Your task to perform on an android device: set the timer Image 0: 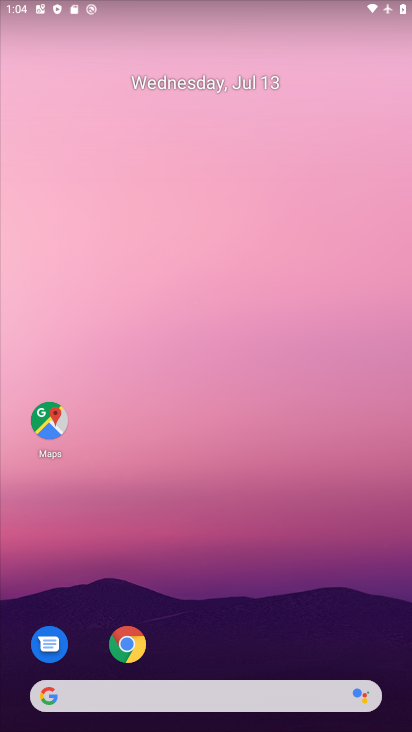
Step 0: drag from (310, 556) to (291, 63)
Your task to perform on an android device: set the timer Image 1: 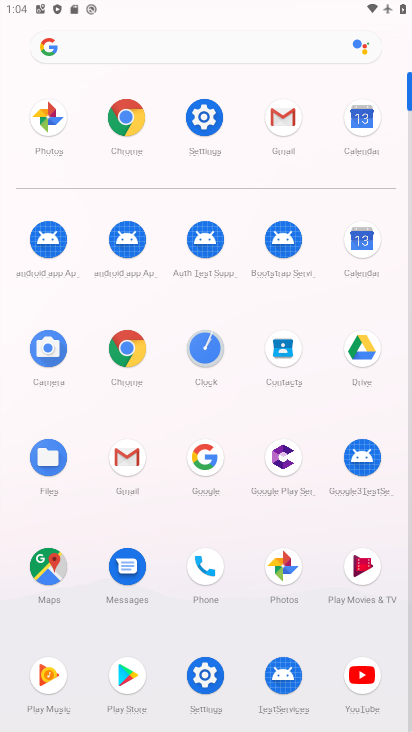
Step 1: click (203, 355)
Your task to perform on an android device: set the timer Image 2: 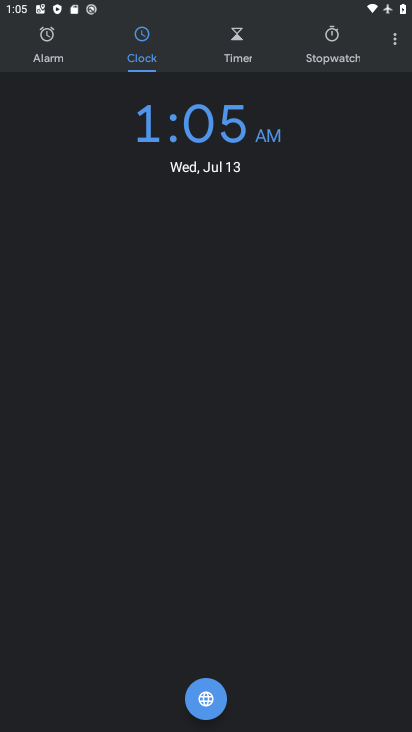
Step 2: click (244, 57)
Your task to perform on an android device: set the timer Image 3: 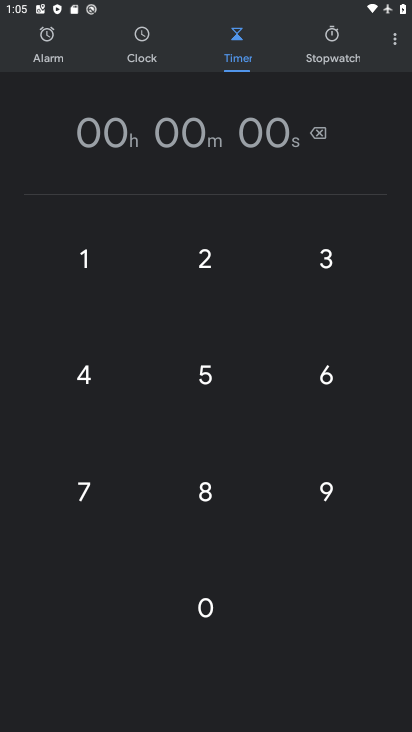
Step 3: click (216, 379)
Your task to perform on an android device: set the timer Image 4: 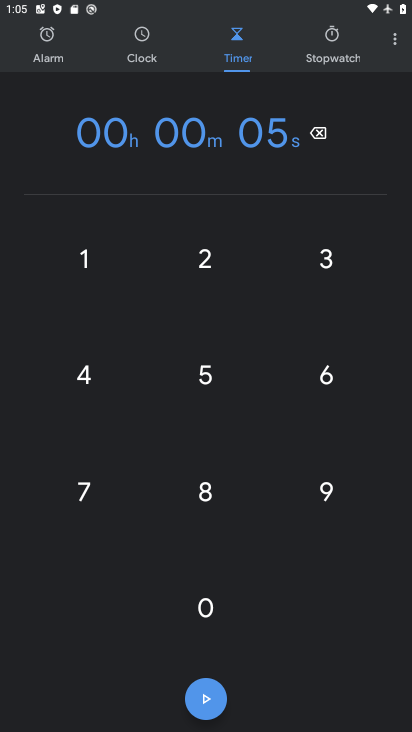
Step 4: task complete